Your task to perform on an android device: Is it going to rain tomorrow? Image 0: 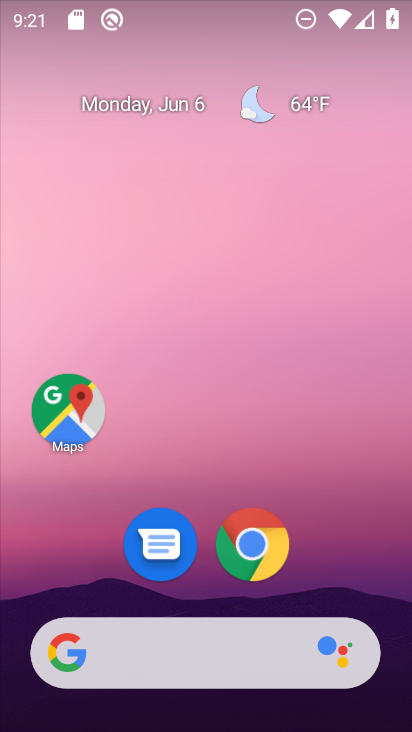
Step 0: click (294, 100)
Your task to perform on an android device: Is it going to rain tomorrow? Image 1: 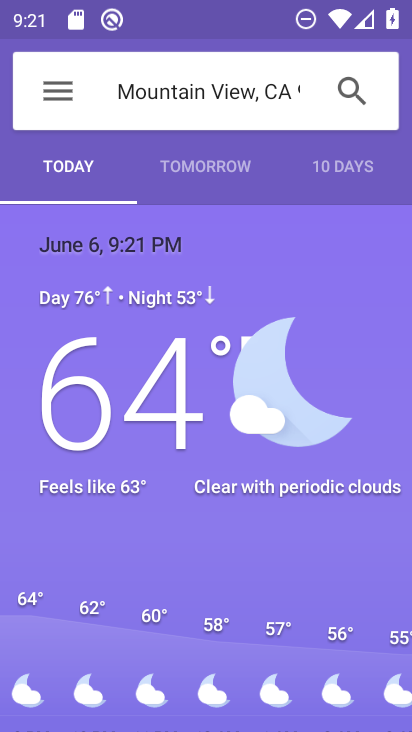
Step 1: click (212, 162)
Your task to perform on an android device: Is it going to rain tomorrow? Image 2: 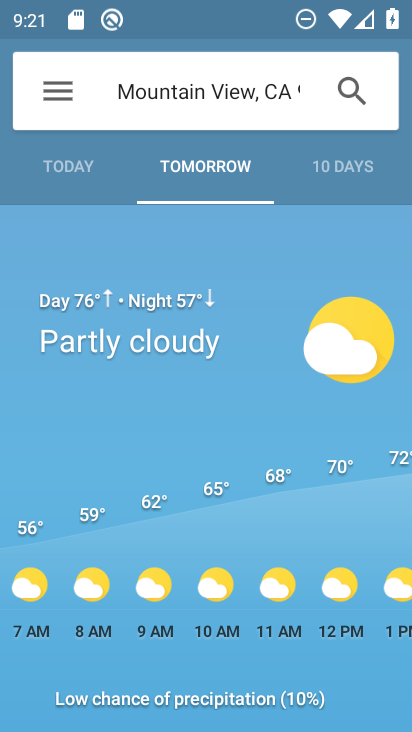
Step 2: task complete